Your task to perform on an android device: Open internet settings Image 0: 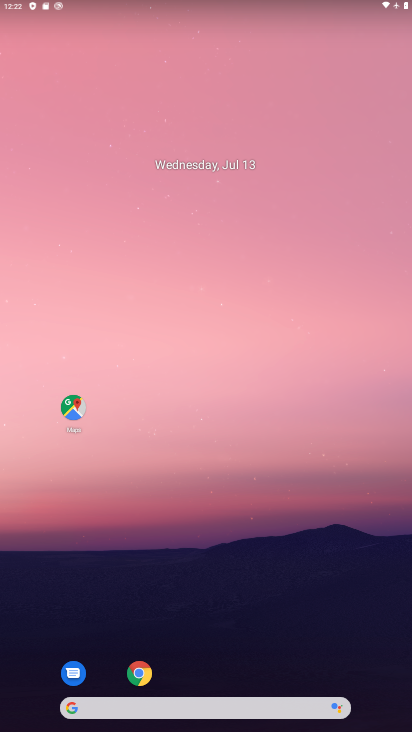
Step 0: drag from (292, 662) to (203, 115)
Your task to perform on an android device: Open internet settings Image 1: 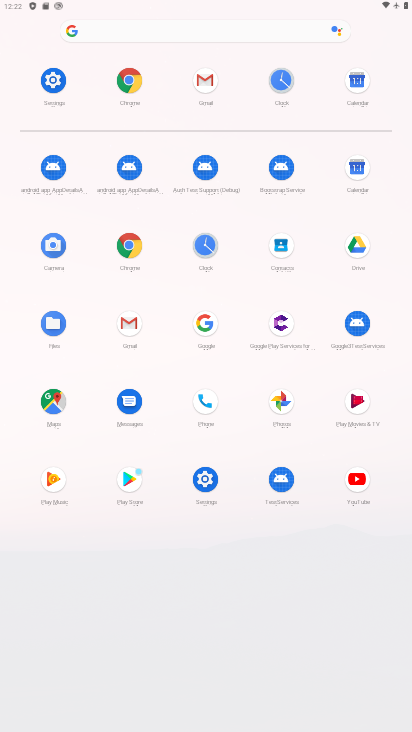
Step 1: click (49, 77)
Your task to perform on an android device: Open internet settings Image 2: 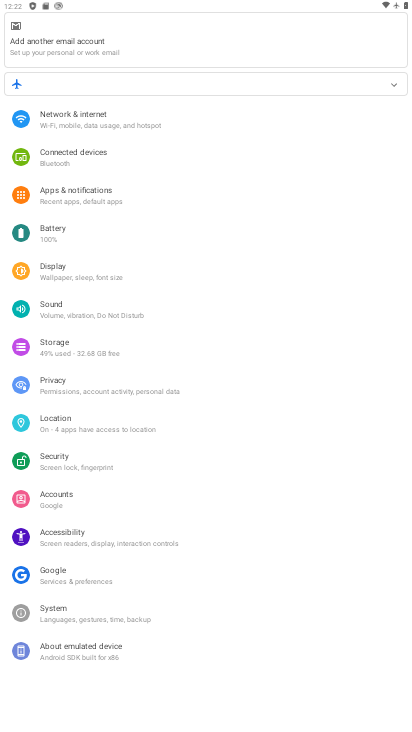
Step 2: click (111, 124)
Your task to perform on an android device: Open internet settings Image 3: 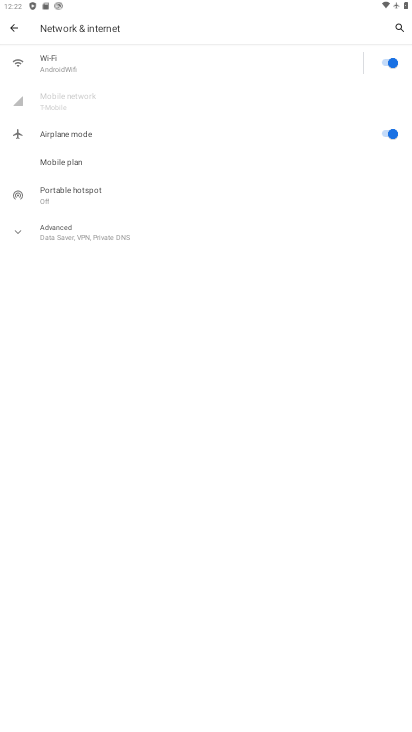
Step 3: click (391, 141)
Your task to perform on an android device: Open internet settings Image 4: 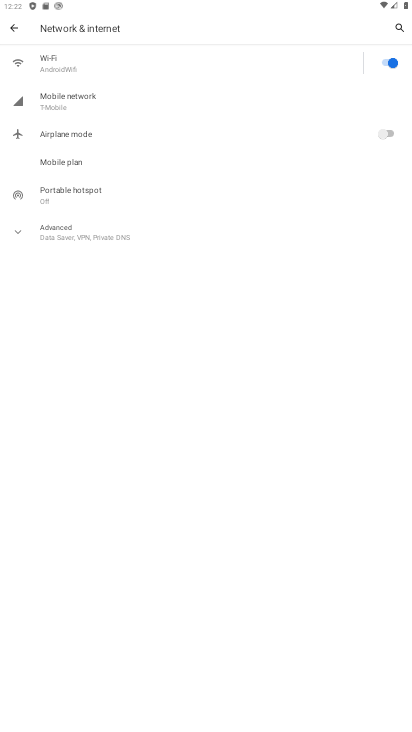
Step 4: task complete